Your task to perform on an android device: change the clock display to show seconds Image 0: 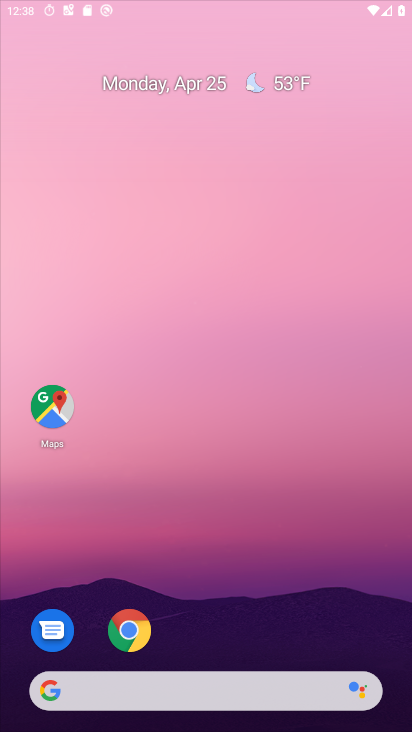
Step 0: click (282, 135)
Your task to perform on an android device: change the clock display to show seconds Image 1: 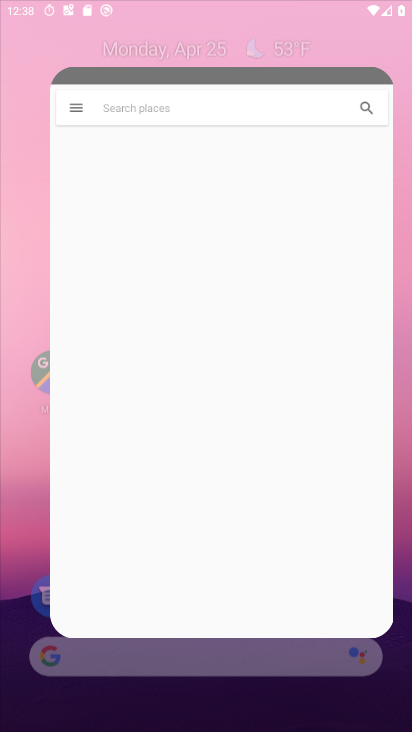
Step 1: drag from (208, 560) to (314, 87)
Your task to perform on an android device: change the clock display to show seconds Image 2: 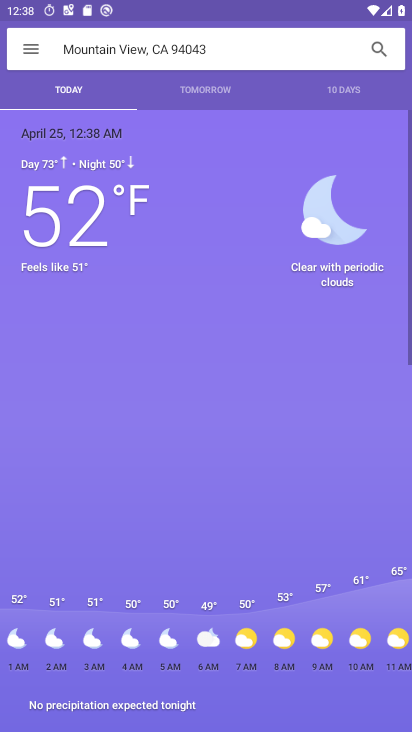
Step 2: drag from (256, 417) to (308, 150)
Your task to perform on an android device: change the clock display to show seconds Image 3: 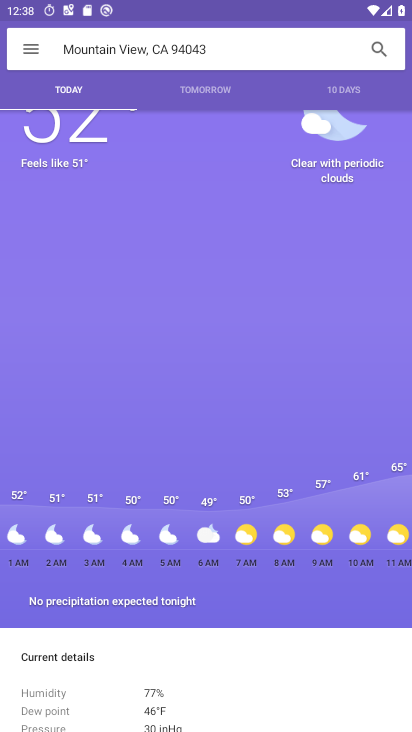
Step 3: press home button
Your task to perform on an android device: change the clock display to show seconds Image 4: 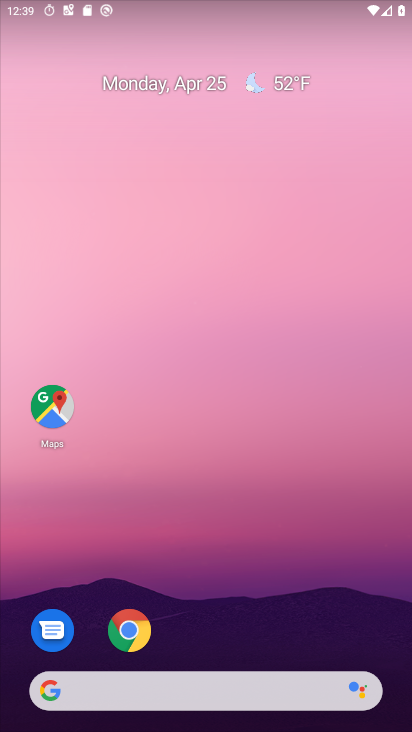
Step 4: drag from (226, 658) to (221, 243)
Your task to perform on an android device: change the clock display to show seconds Image 5: 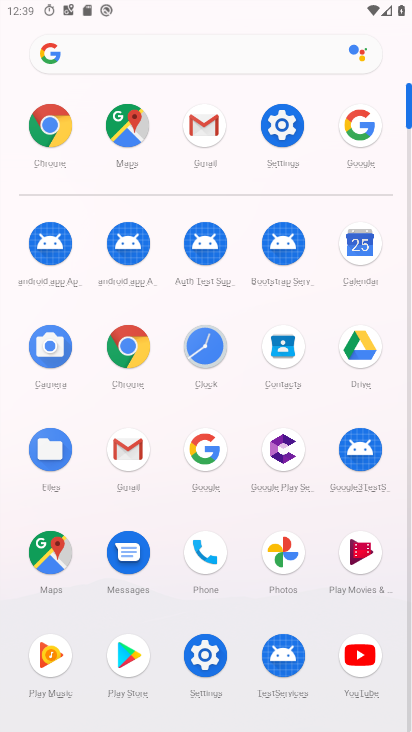
Step 5: click (194, 332)
Your task to perform on an android device: change the clock display to show seconds Image 6: 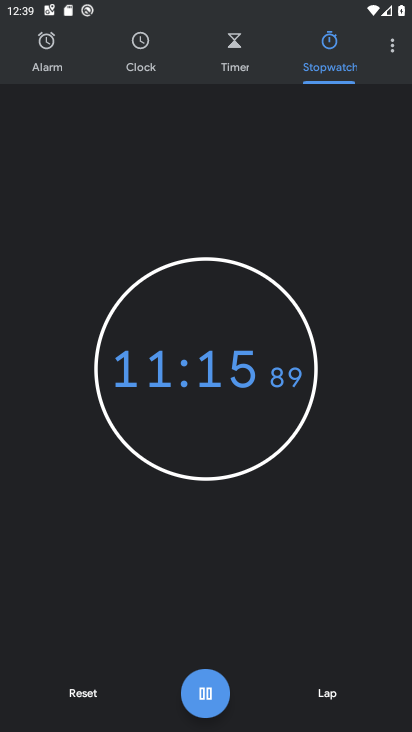
Step 6: click (399, 39)
Your task to perform on an android device: change the clock display to show seconds Image 7: 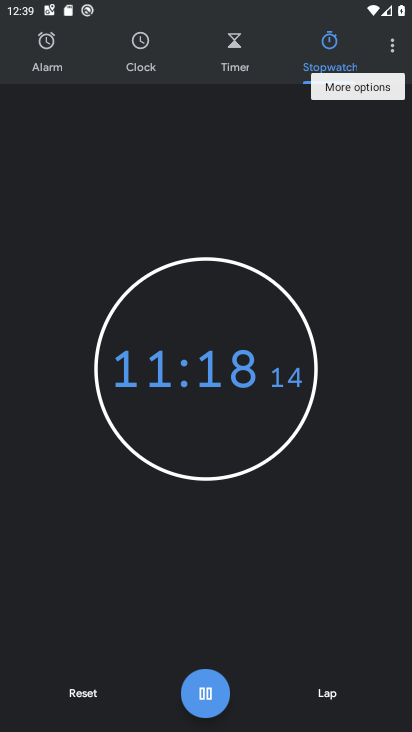
Step 7: click (338, 94)
Your task to perform on an android device: change the clock display to show seconds Image 8: 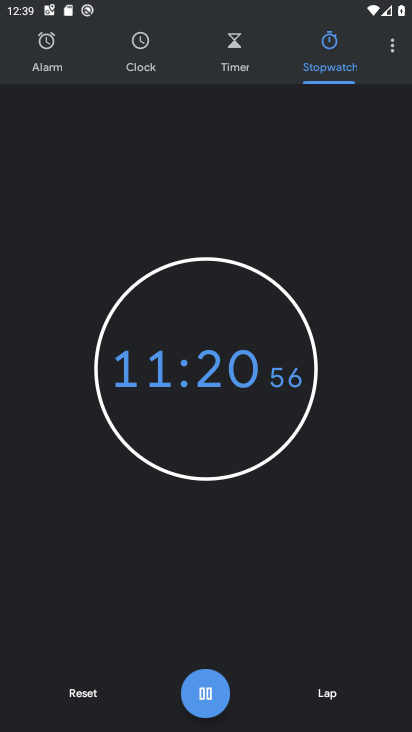
Step 8: click (381, 46)
Your task to perform on an android device: change the clock display to show seconds Image 9: 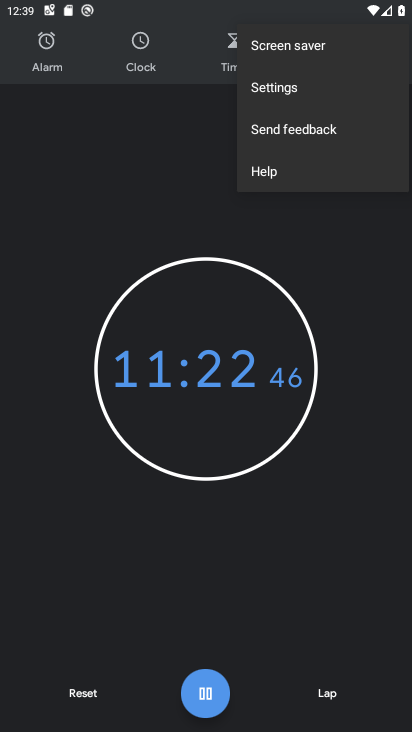
Step 9: click (292, 84)
Your task to perform on an android device: change the clock display to show seconds Image 10: 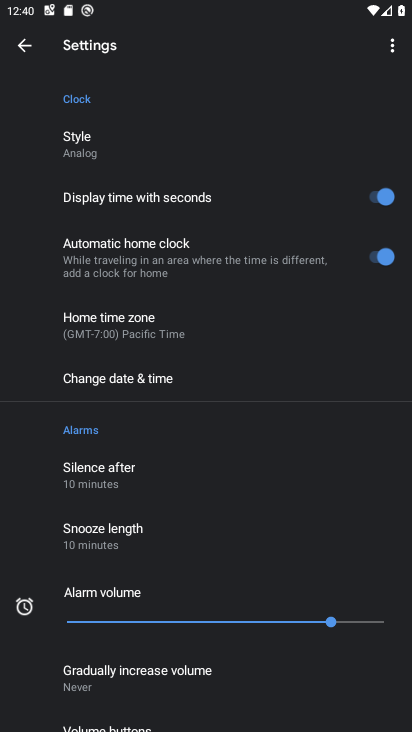
Step 10: drag from (233, 647) to (246, 481)
Your task to perform on an android device: change the clock display to show seconds Image 11: 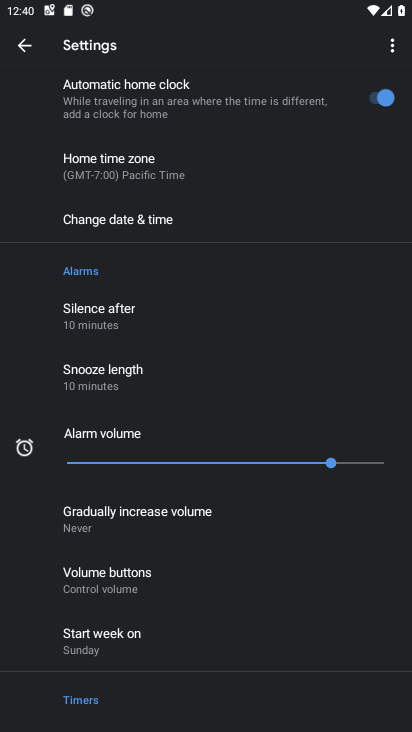
Step 11: drag from (164, 217) to (306, 532)
Your task to perform on an android device: change the clock display to show seconds Image 12: 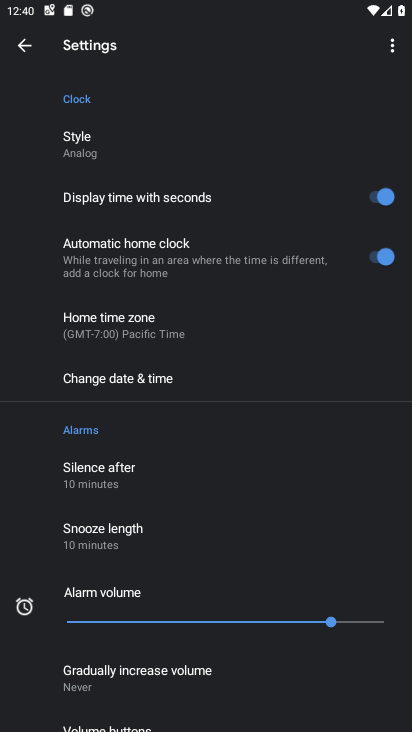
Step 12: click (383, 210)
Your task to perform on an android device: change the clock display to show seconds Image 13: 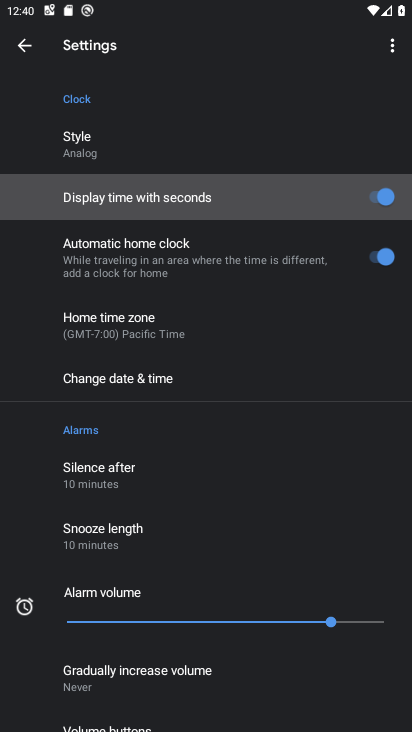
Step 13: task complete